Your task to perform on an android device: Go to display settings Image 0: 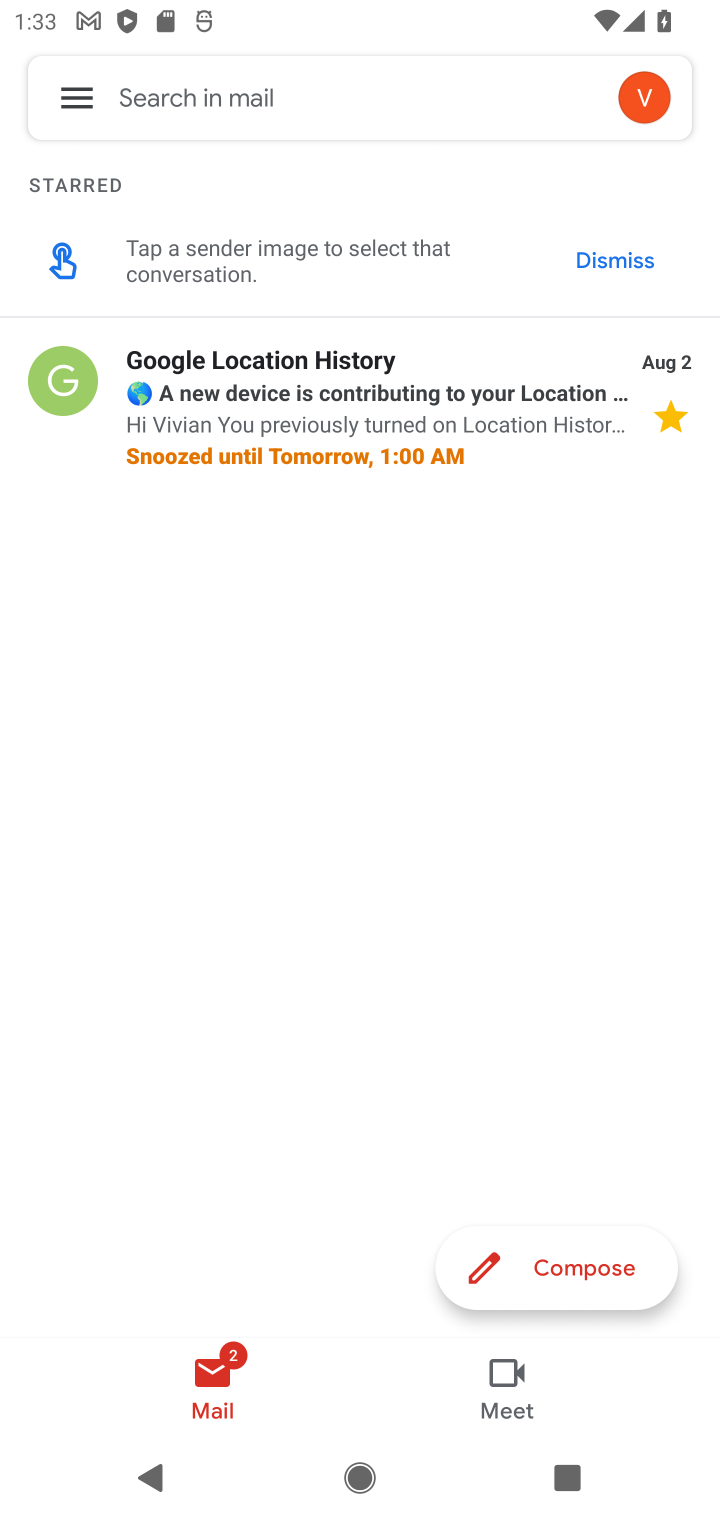
Step 0: press home button
Your task to perform on an android device: Go to display settings Image 1: 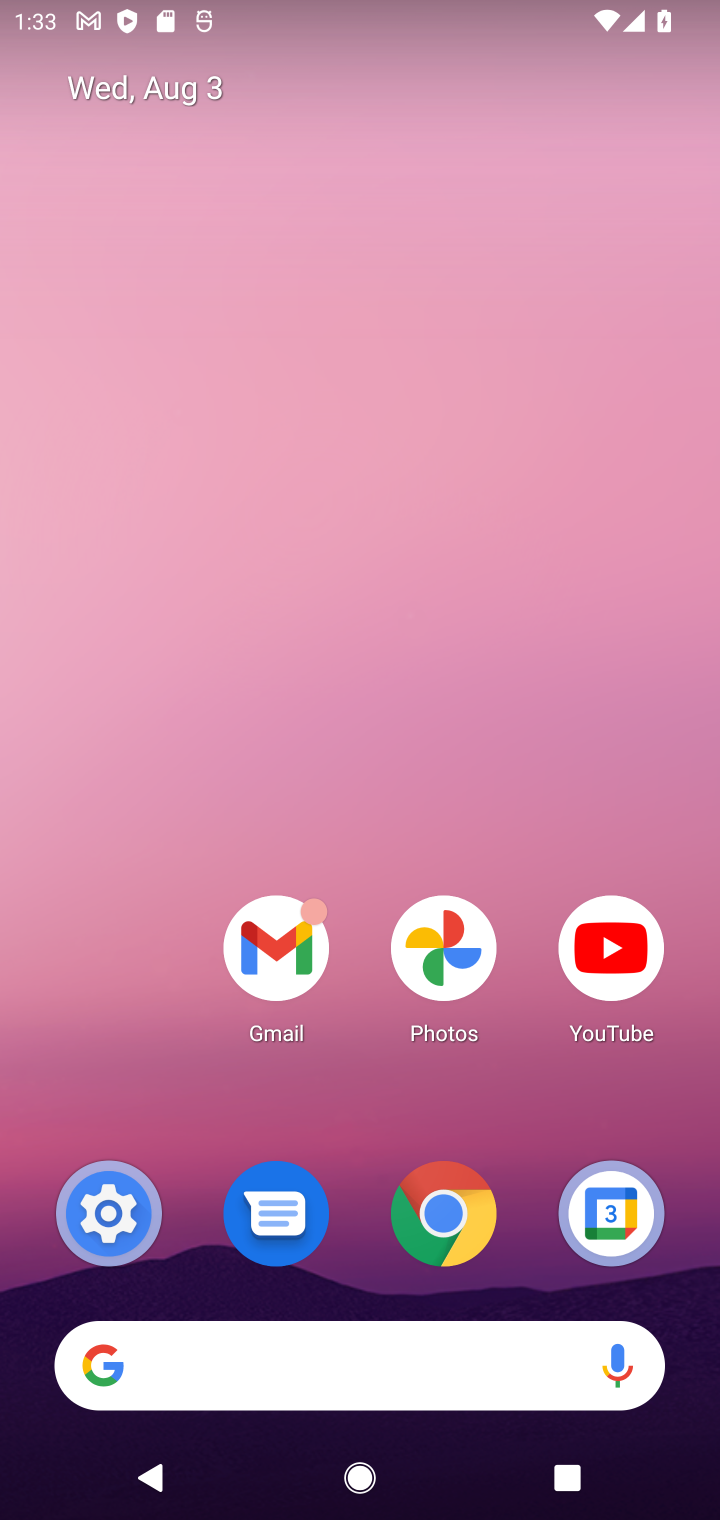
Step 1: drag from (420, 1374) to (645, 2)
Your task to perform on an android device: Go to display settings Image 2: 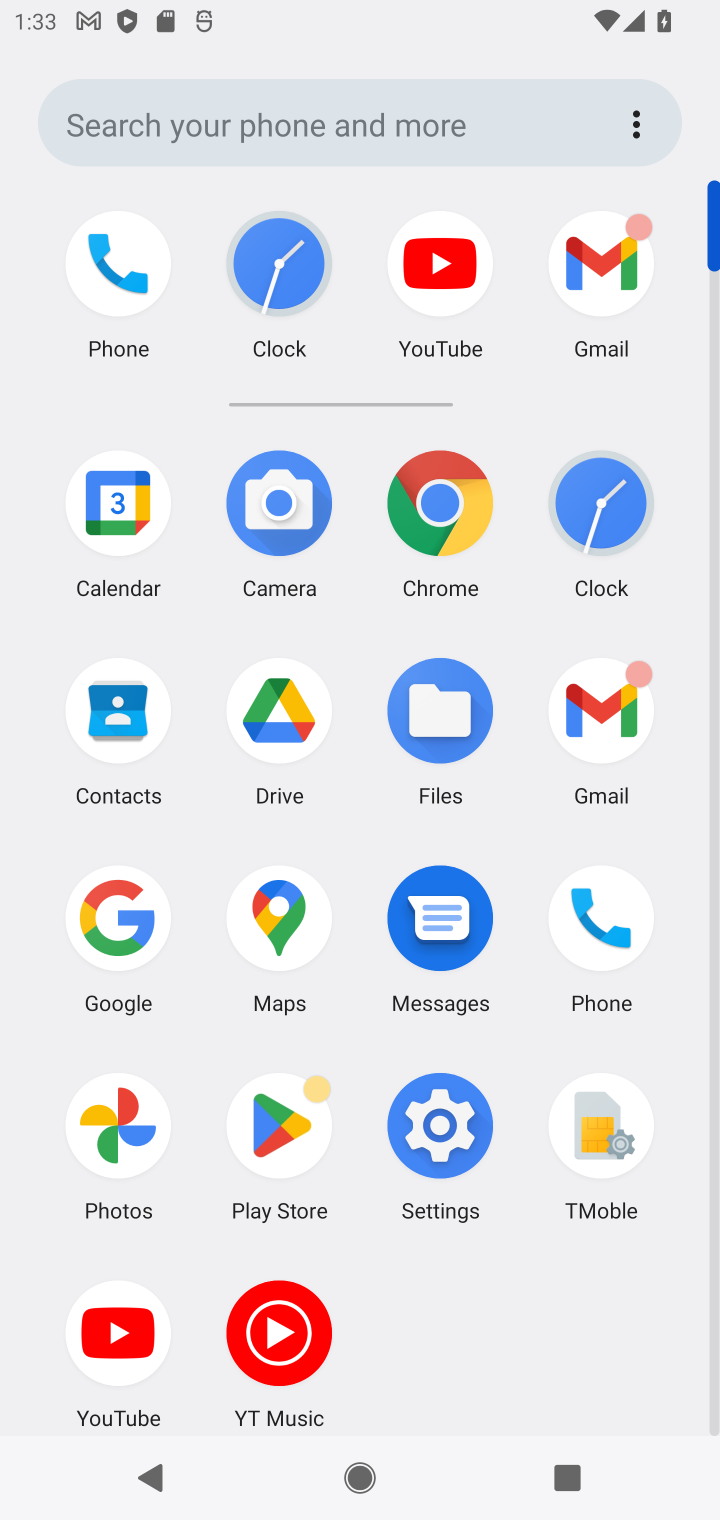
Step 2: click (432, 1132)
Your task to perform on an android device: Go to display settings Image 3: 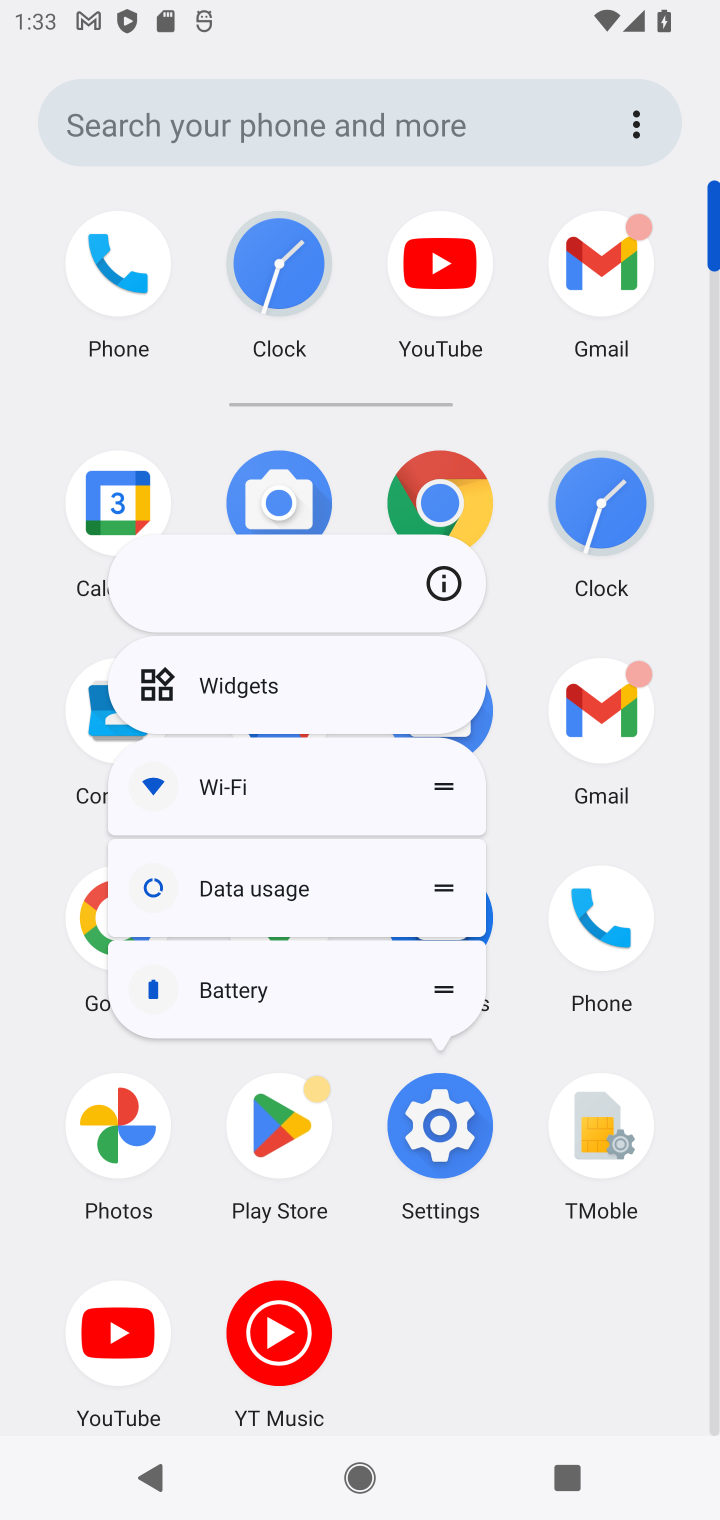
Step 3: click (438, 1159)
Your task to perform on an android device: Go to display settings Image 4: 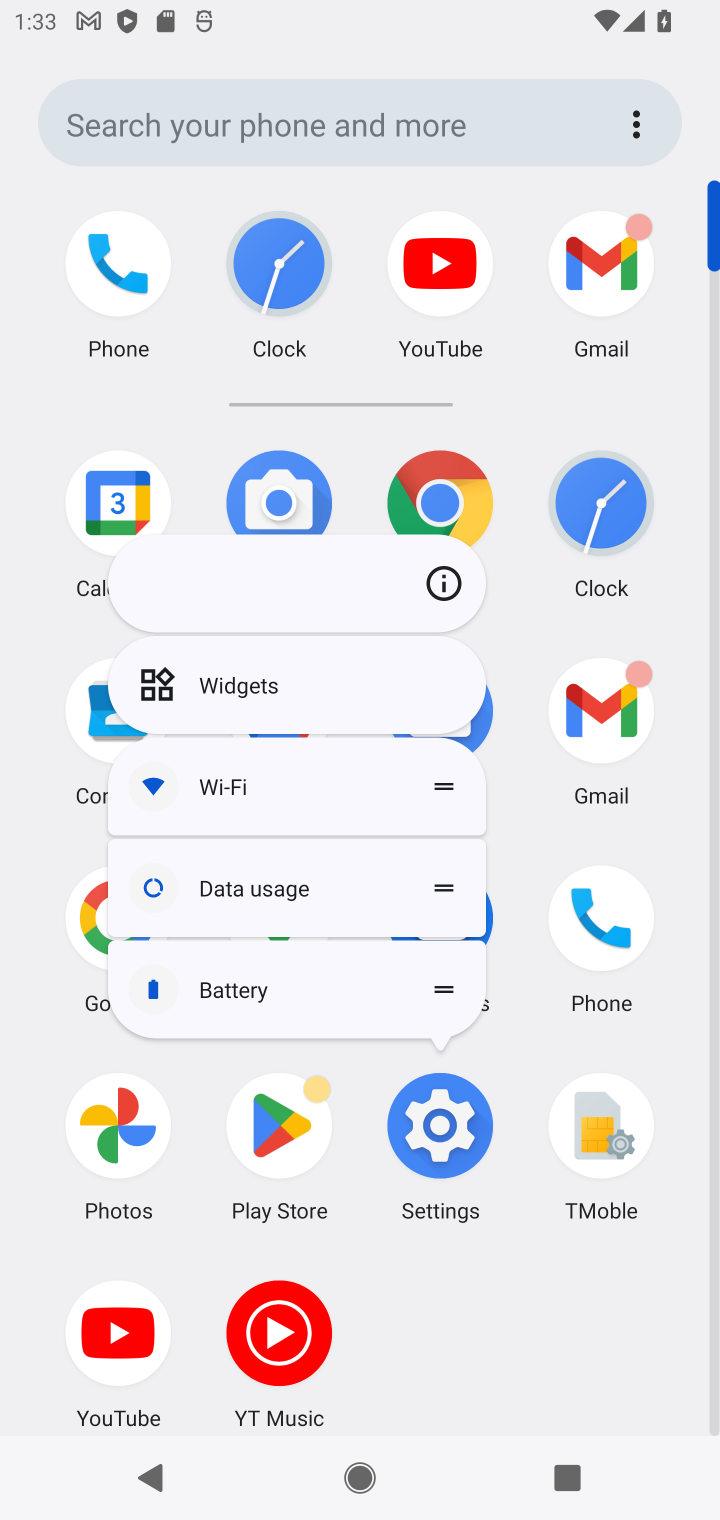
Step 4: click (436, 1157)
Your task to perform on an android device: Go to display settings Image 5: 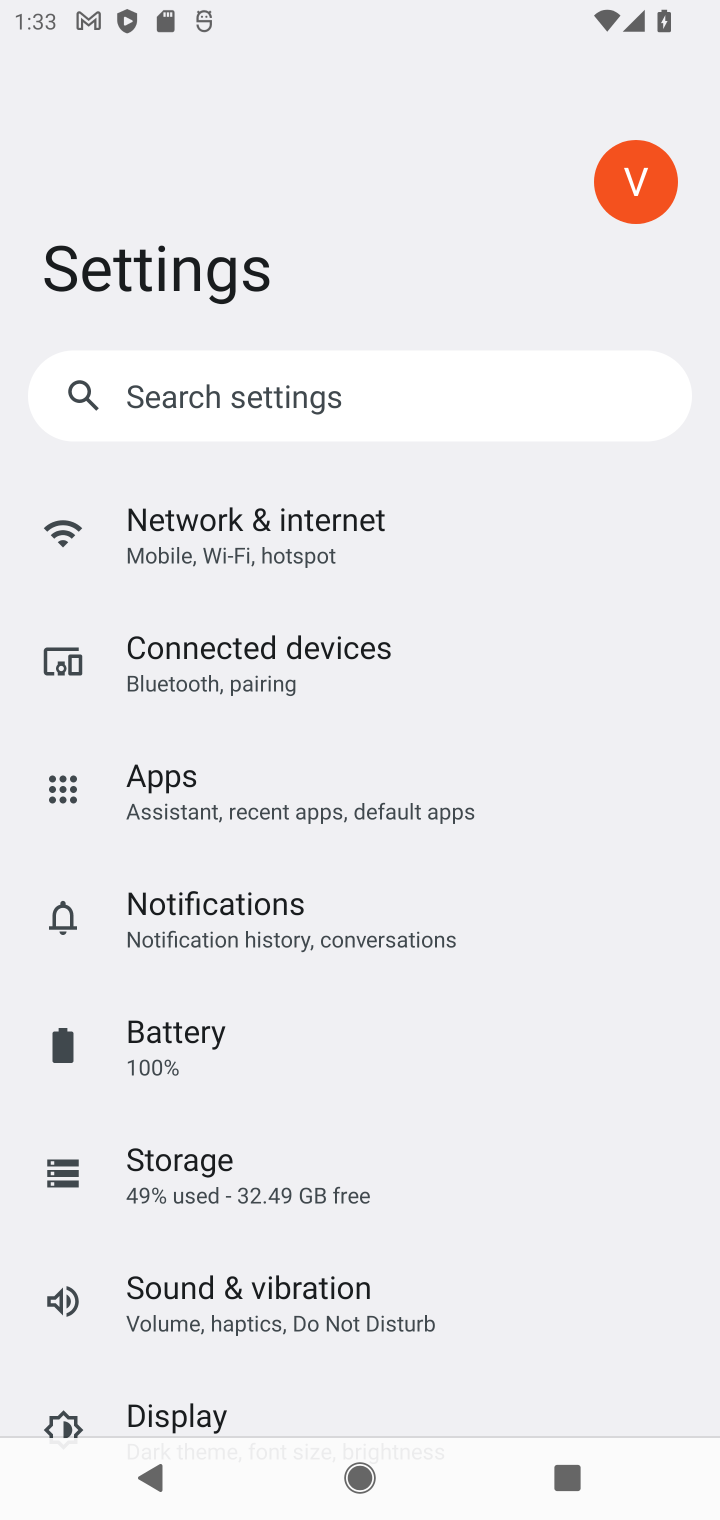
Step 5: click (229, 1401)
Your task to perform on an android device: Go to display settings Image 6: 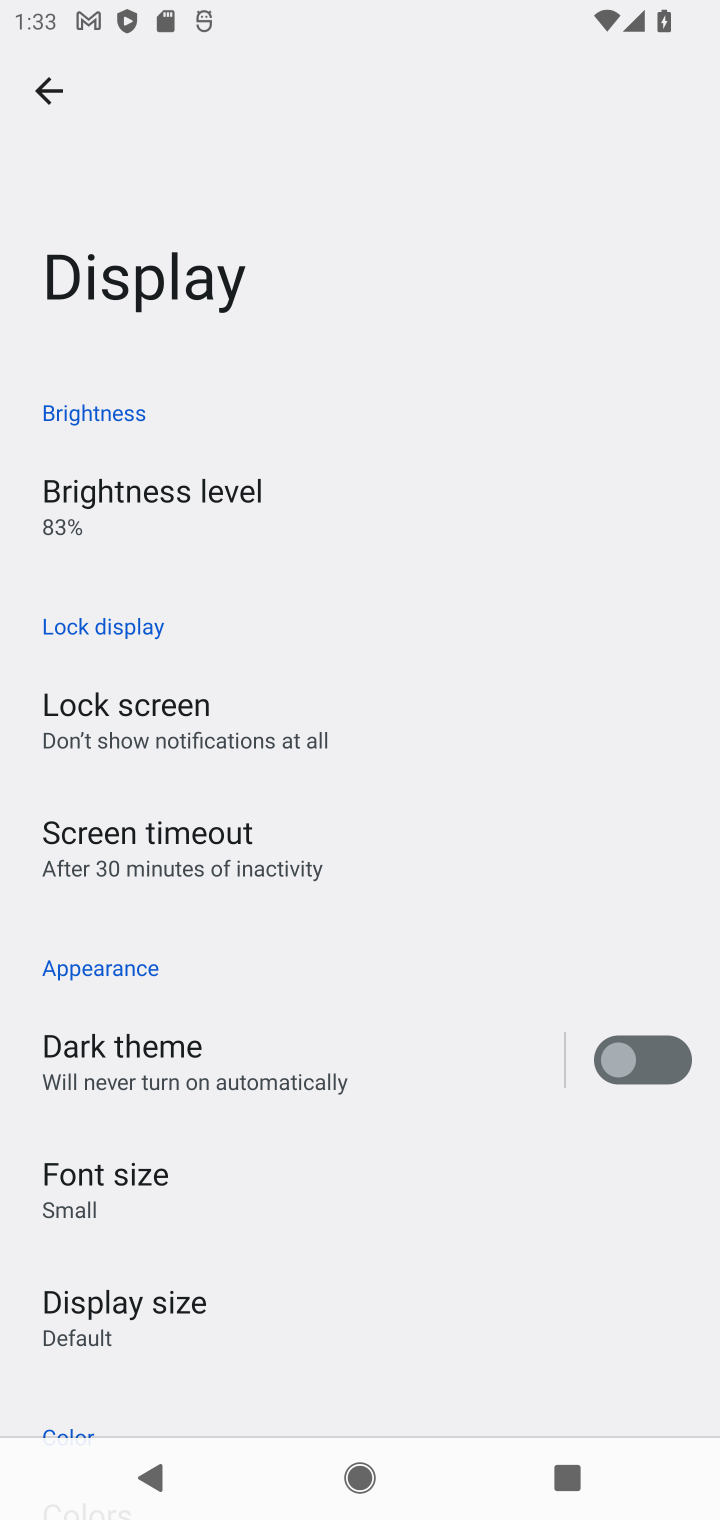
Step 6: task complete